Your task to perform on an android device: see creations saved in the google photos Image 0: 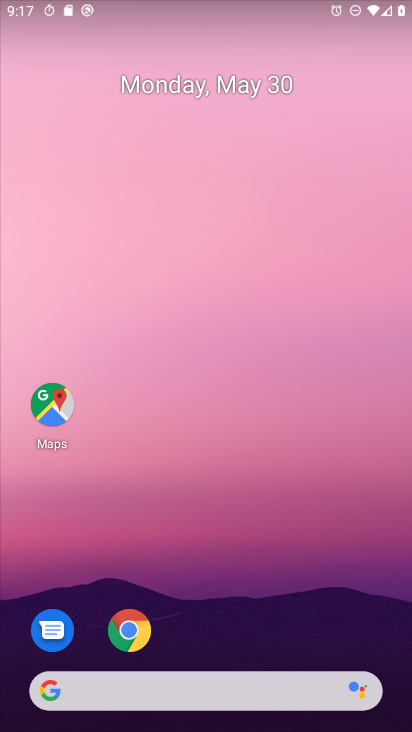
Step 0: drag from (365, 625) to (257, 40)
Your task to perform on an android device: see creations saved in the google photos Image 1: 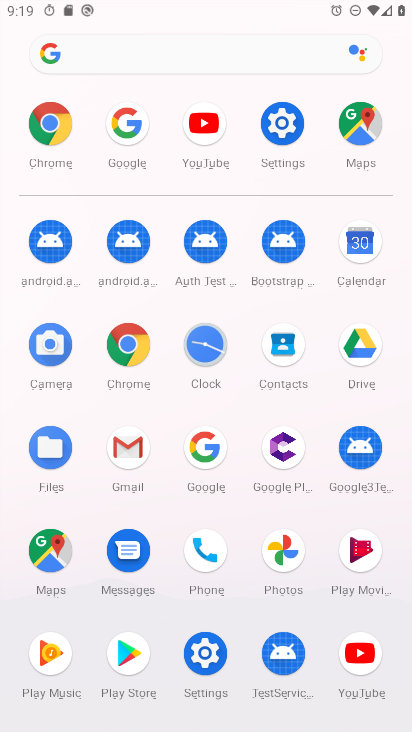
Step 1: click (268, 559)
Your task to perform on an android device: see creations saved in the google photos Image 2: 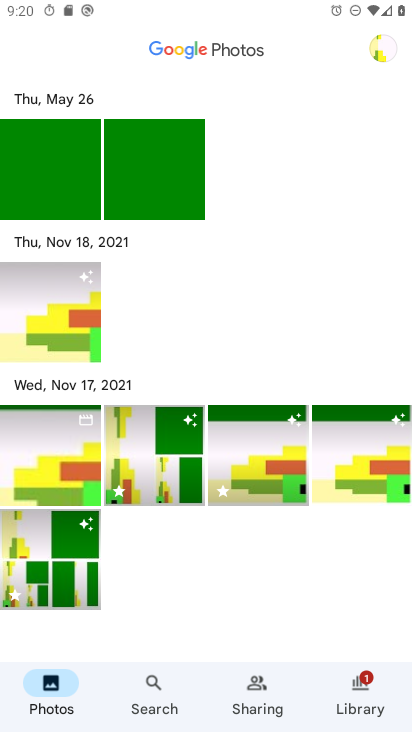
Step 2: click (153, 701)
Your task to perform on an android device: see creations saved in the google photos Image 3: 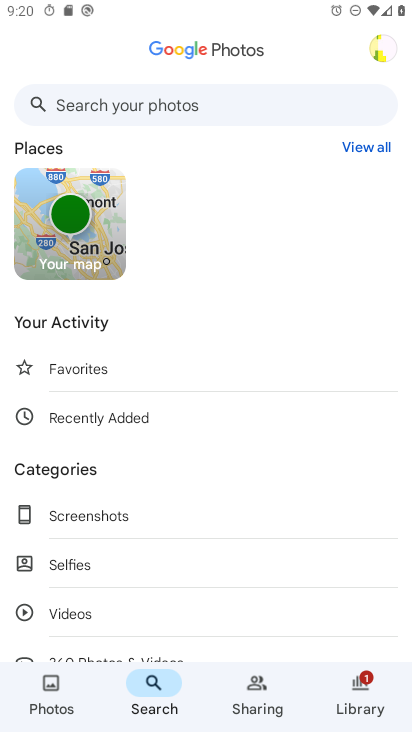
Step 3: drag from (178, 614) to (180, 244)
Your task to perform on an android device: see creations saved in the google photos Image 4: 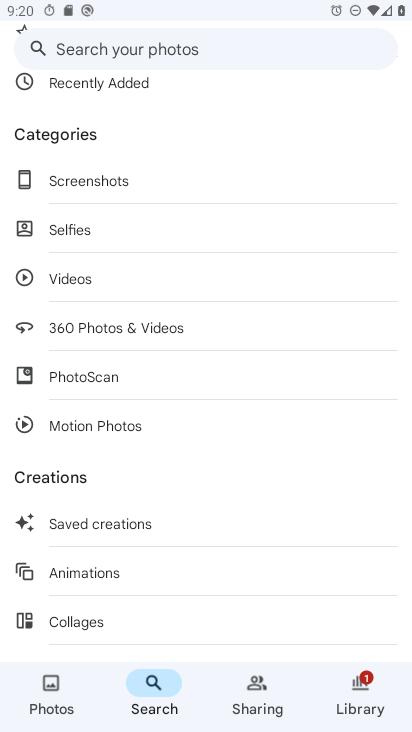
Step 4: click (164, 530)
Your task to perform on an android device: see creations saved in the google photos Image 5: 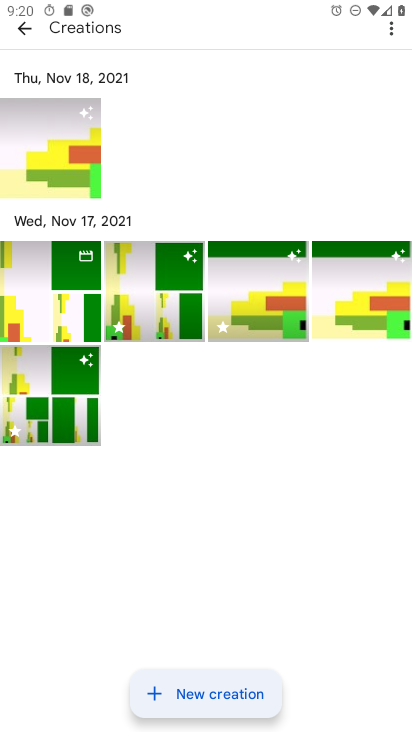
Step 5: task complete